Your task to perform on an android device: delete browsing data in the chrome app Image 0: 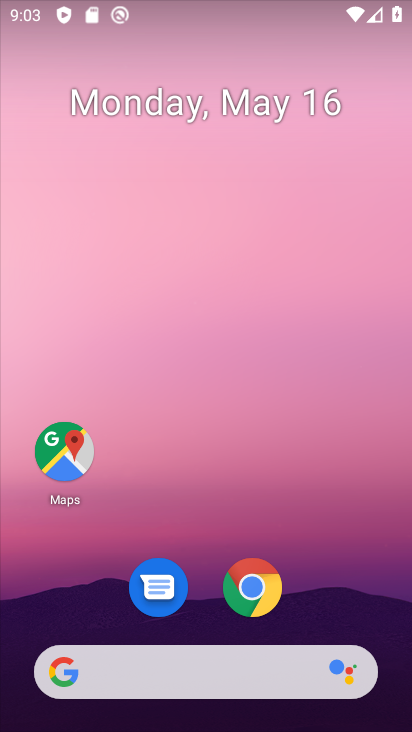
Step 0: click (262, 594)
Your task to perform on an android device: delete browsing data in the chrome app Image 1: 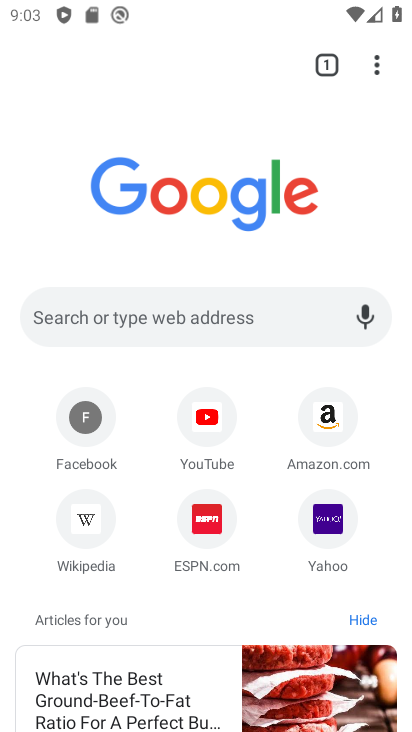
Step 1: drag from (394, 66) to (238, 520)
Your task to perform on an android device: delete browsing data in the chrome app Image 2: 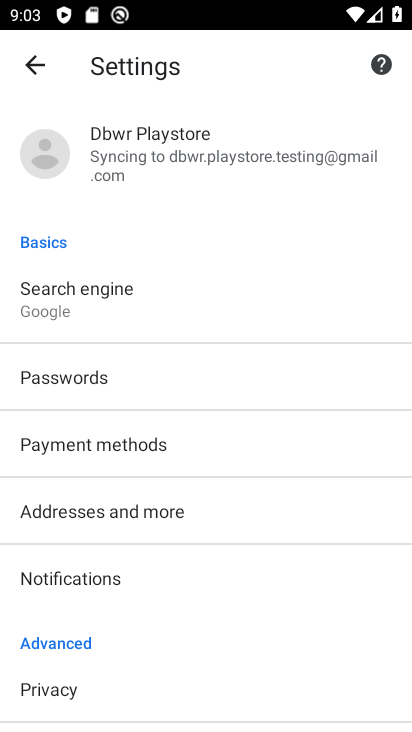
Step 2: click (120, 689)
Your task to perform on an android device: delete browsing data in the chrome app Image 3: 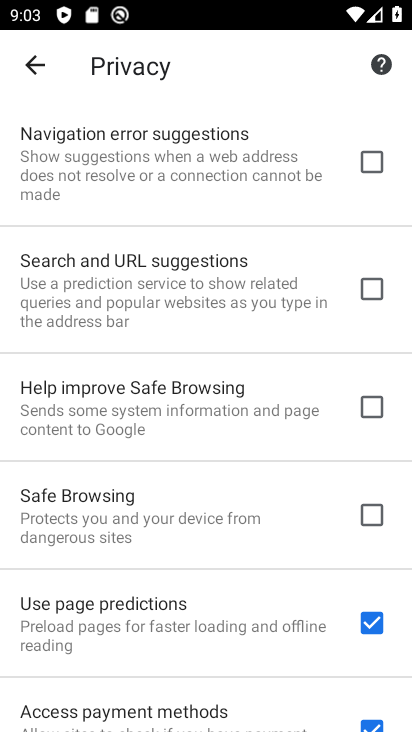
Step 3: drag from (145, 720) to (277, 131)
Your task to perform on an android device: delete browsing data in the chrome app Image 4: 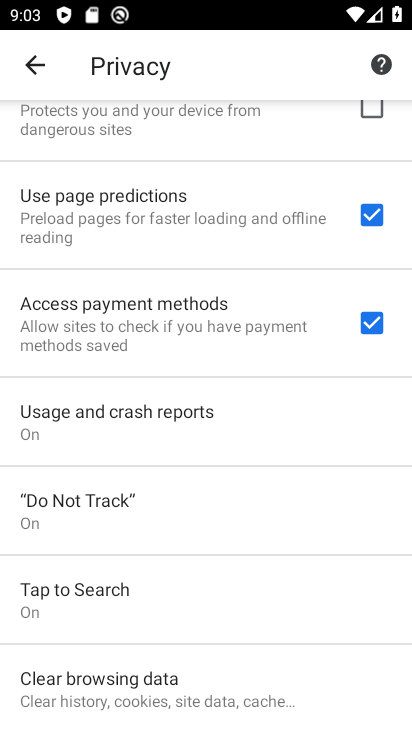
Step 4: click (135, 702)
Your task to perform on an android device: delete browsing data in the chrome app Image 5: 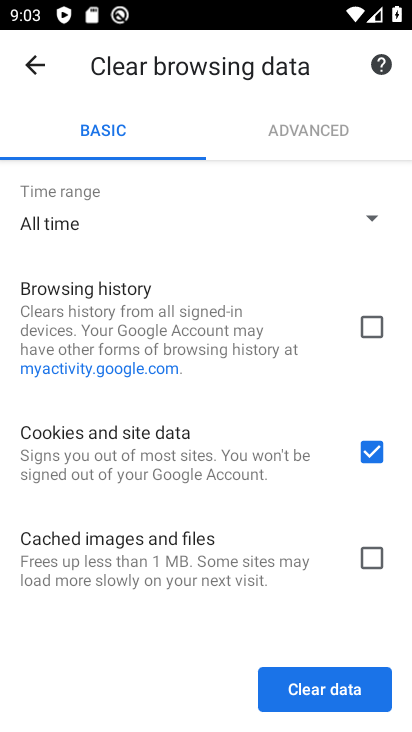
Step 5: click (370, 324)
Your task to perform on an android device: delete browsing data in the chrome app Image 6: 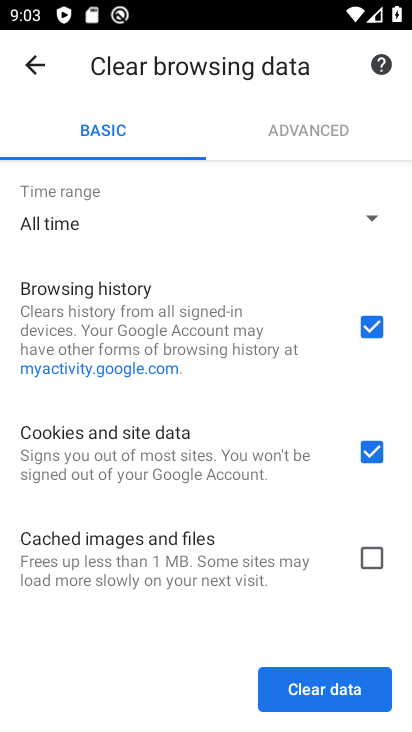
Step 6: click (363, 455)
Your task to perform on an android device: delete browsing data in the chrome app Image 7: 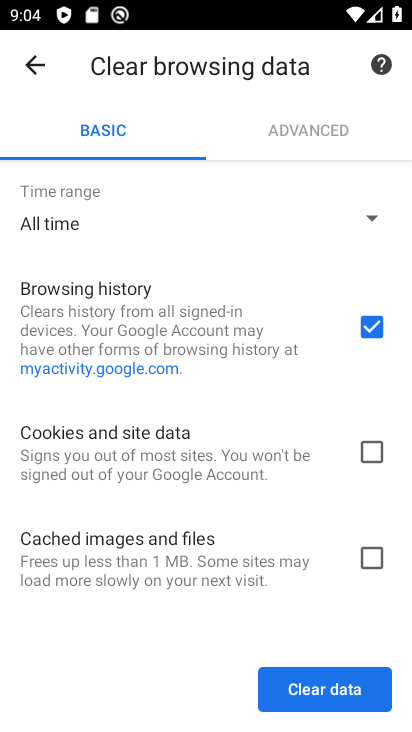
Step 7: click (332, 707)
Your task to perform on an android device: delete browsing data in the chrome app Image 8: 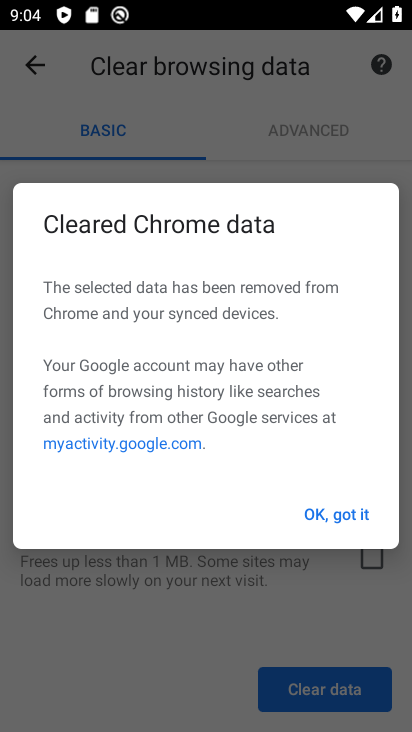
Step 8: click (348, 516)
Your task to perform on an android device: delete browsing data in the chrome app Image 9: 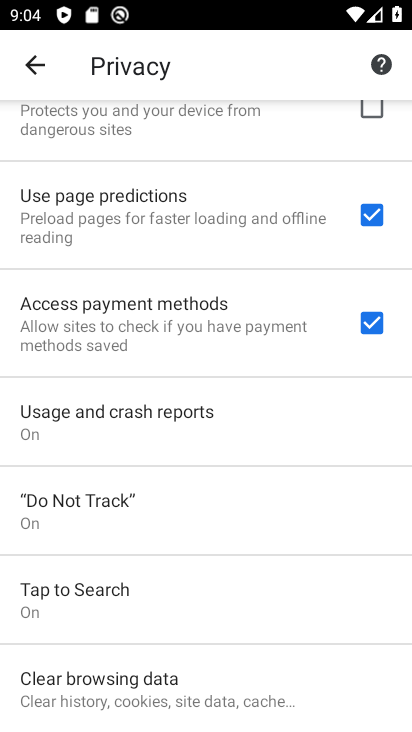
Step 9: task complete